Your task to perform on an android device: Open calendar and show me the fourth week of next month Image 0: 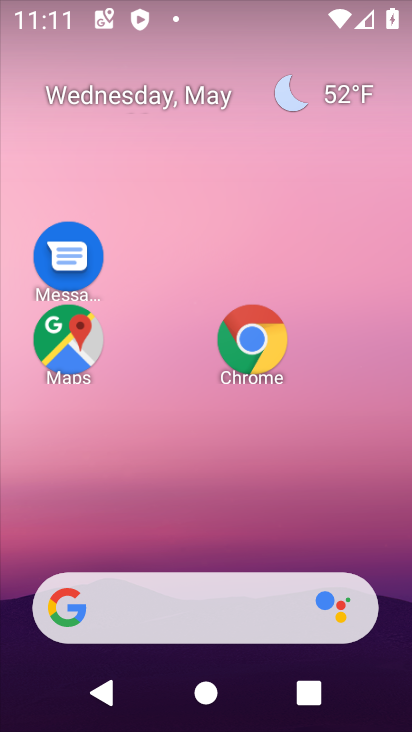
Step 0: drag from (248, 510) to (238, 16)
Your task to perform on an android device: Open calendar and show me the fourth week of next month Image 1: 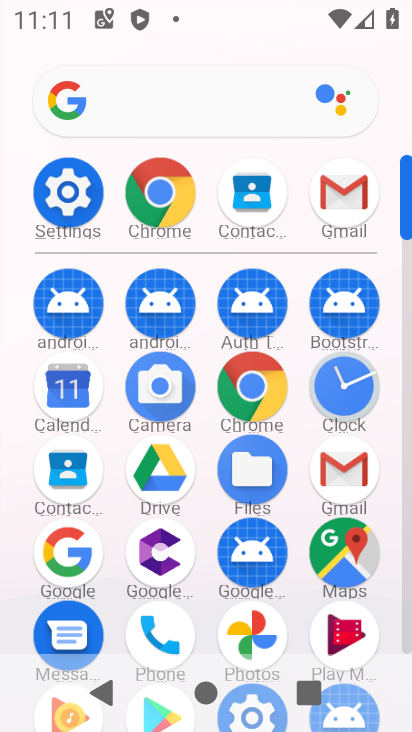
Step 1: click (63, 387)
Your task to perform on an android device: Open calendar and show me the fourth week of next month Image 2: 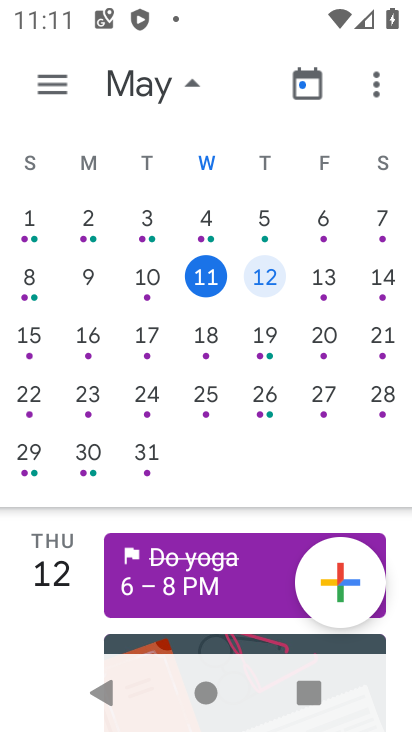
Step 2: drag from (352, 459) to (1, 431)
Your task to perform on an android device: Open calendar and show me the fourth week of next month Image 3: 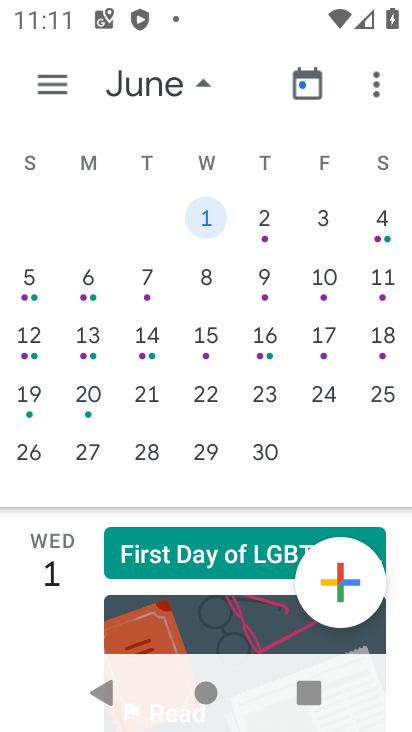
Step 3: click (209, 391)
Your task to perform on an android device: Open calendar and show me the fourth week of next month Image 4: 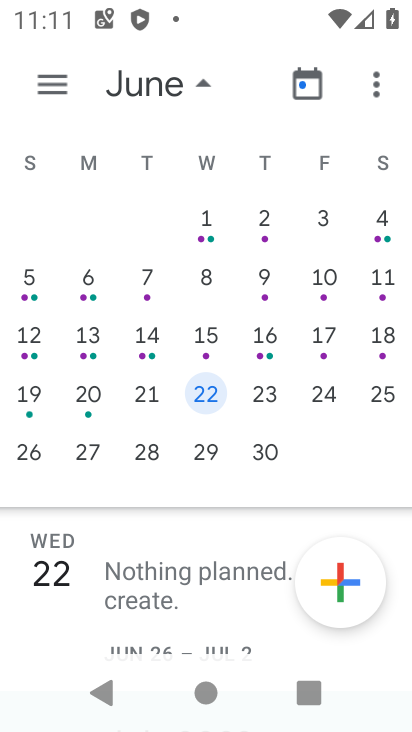
Step 4: task complete